Your task to perform on an android device: change notifications settings Image 0: 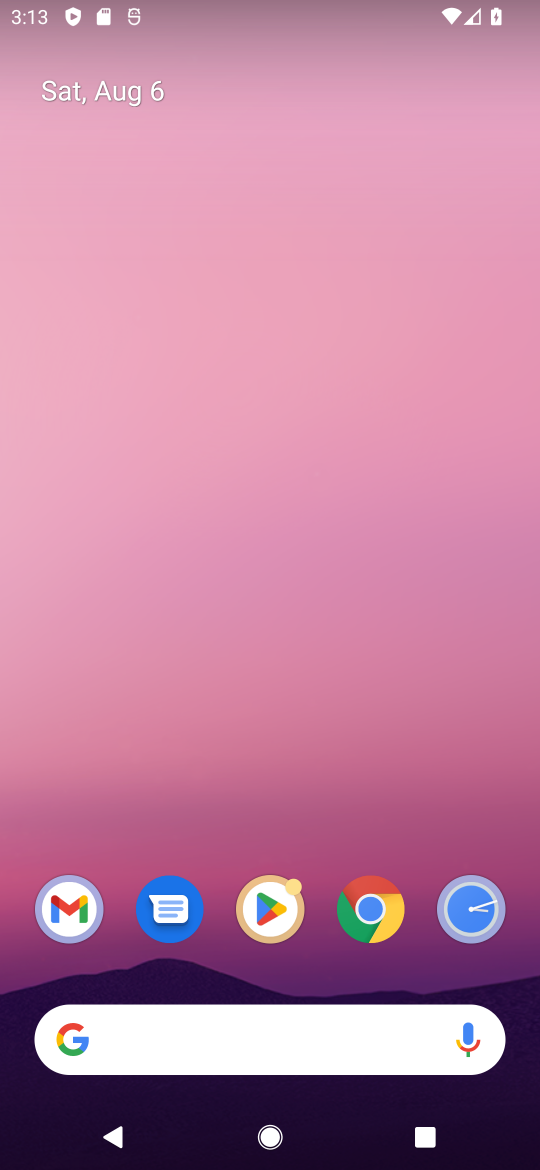
Step 0: drag from (273, 936) to (444, 109)
Your task to perform on an android device: change notifications settings Image 1: 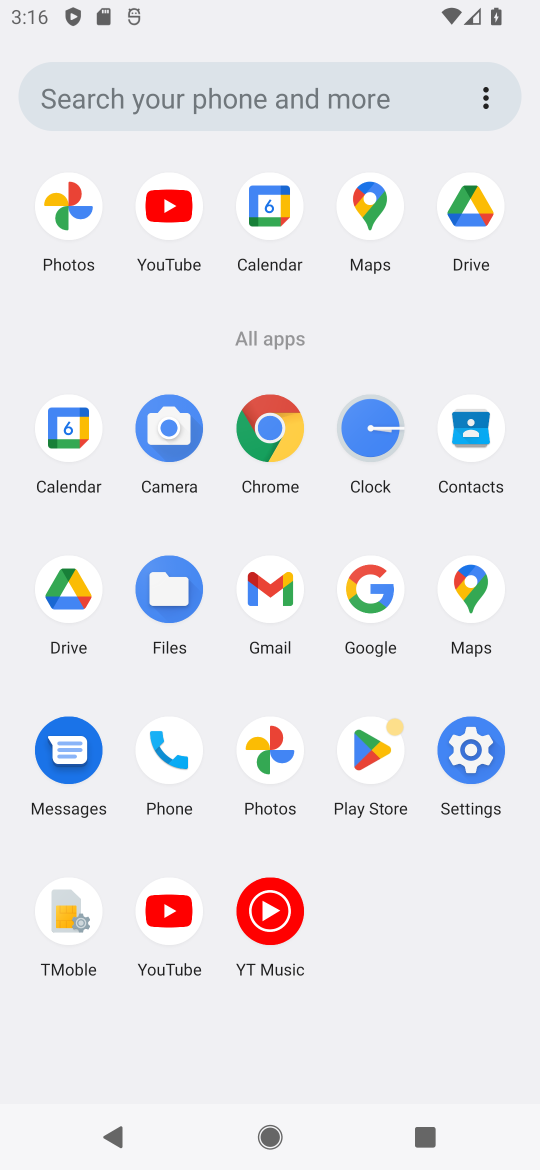
Step 1: click (491, 765)
Your task to perform on an android device: change notifications settings Image 2: 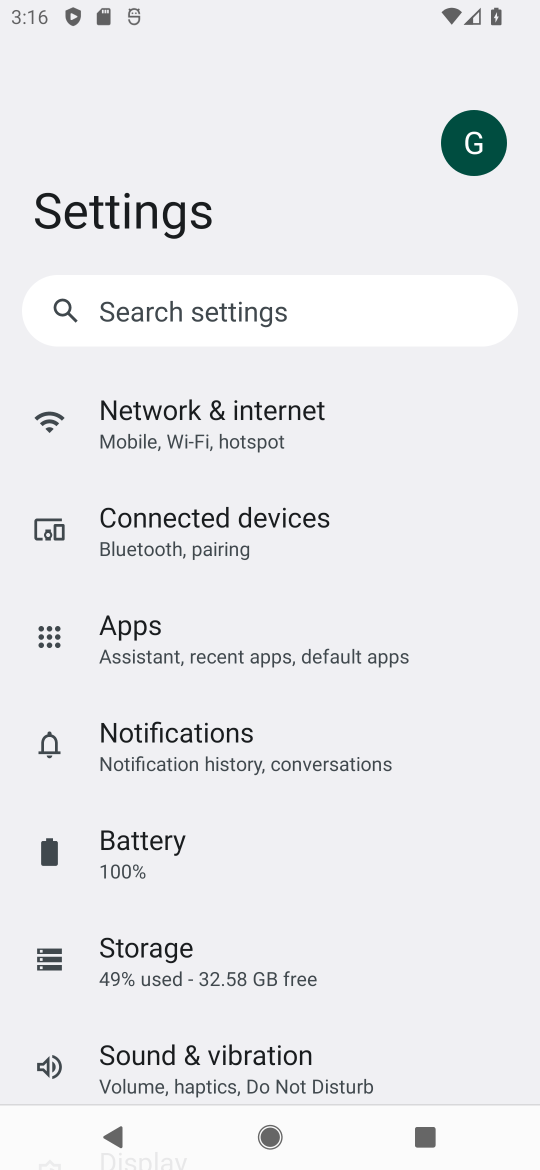
Step 2: click (174, 747)
Your task to perform on an android device: change notifications settings Image 3: 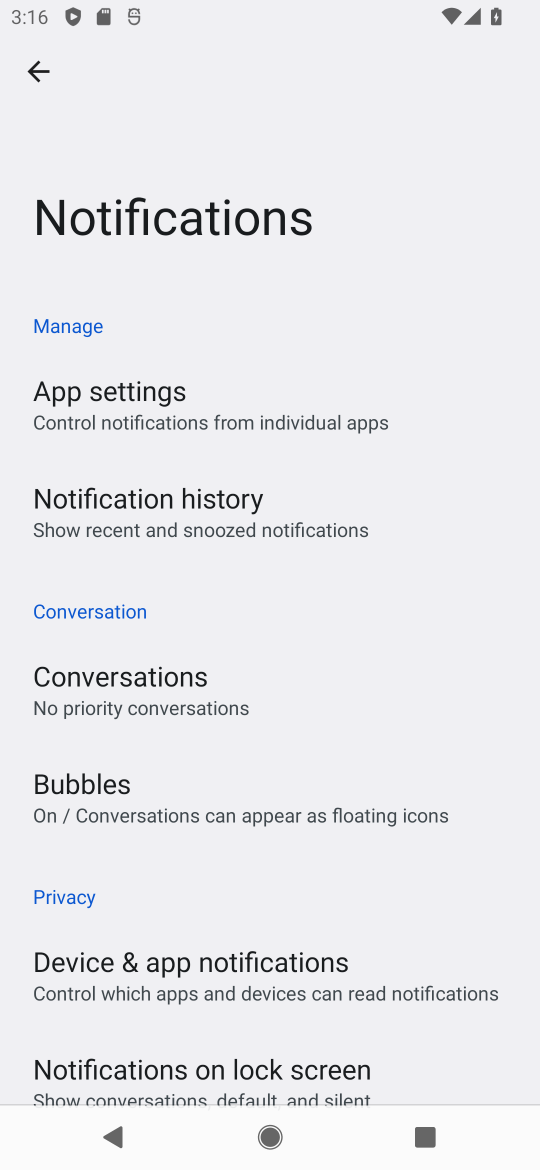
Step 3: click (203, 956)
Your task to perform on an android device: change notifications settings Image 4: 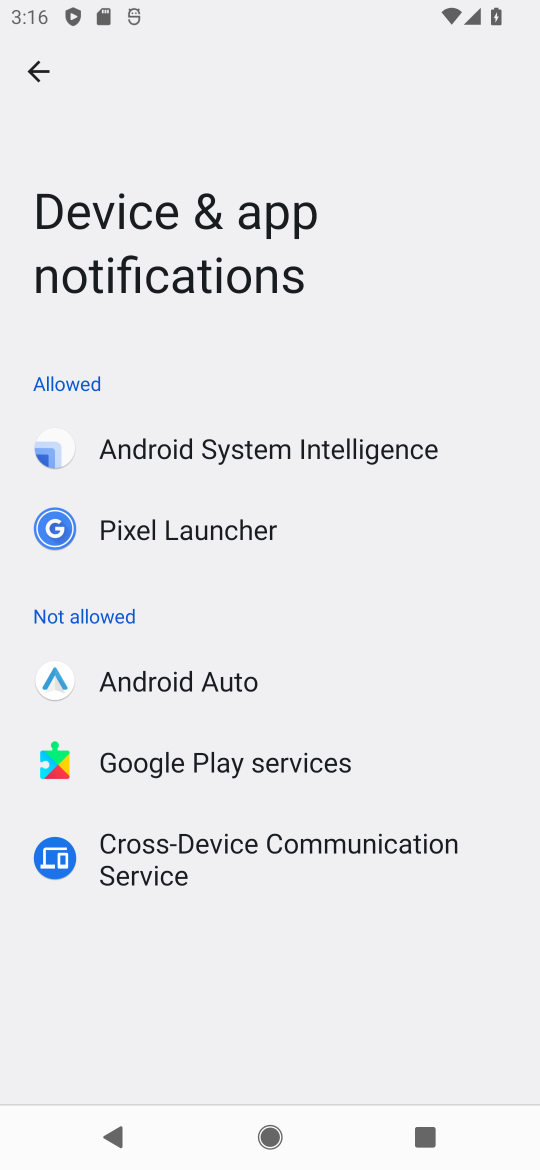
Step 4: click (39, 68)
Your task to perform on an android device: change notifications settings Image 5: 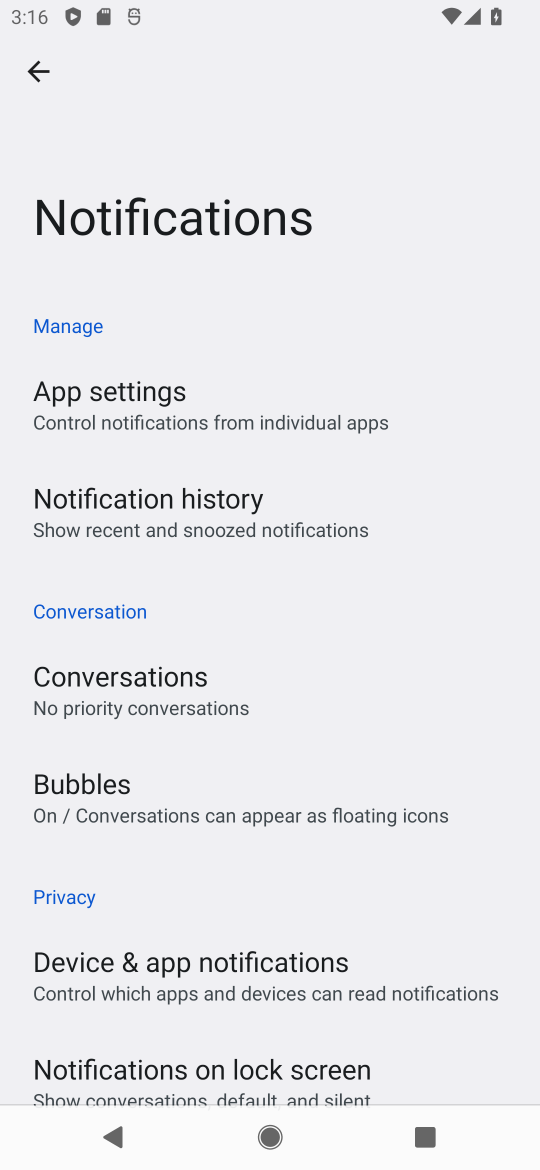
Step 5: drag from (230, 973) to (379, 196)
Your task to perform on an android device: change notifications settings Image 6: 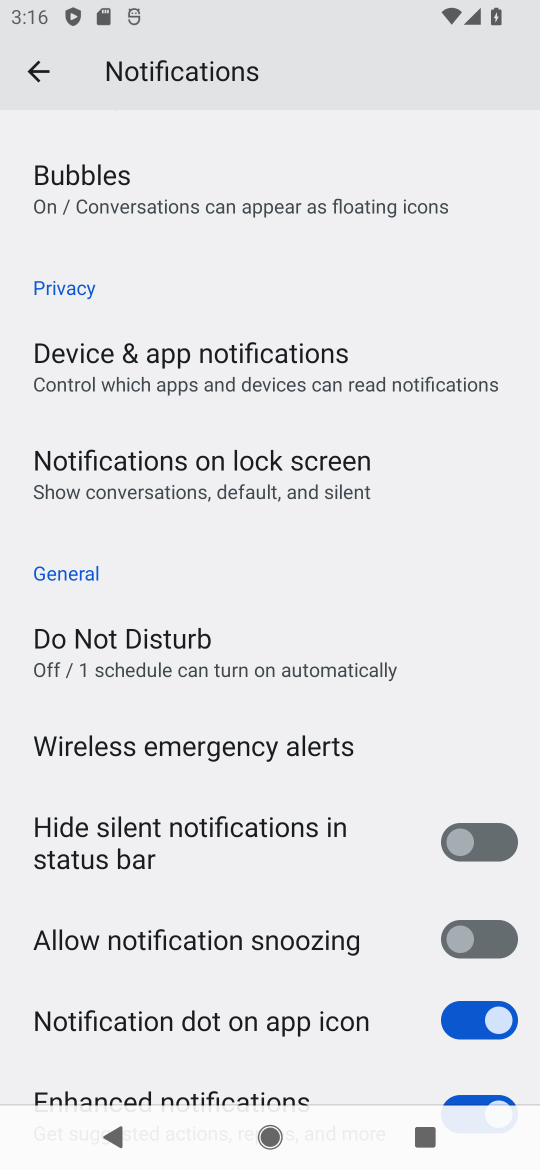
Step 6: click (486, 838)
Your task to perform on an android device: change notifications settings Image 7: 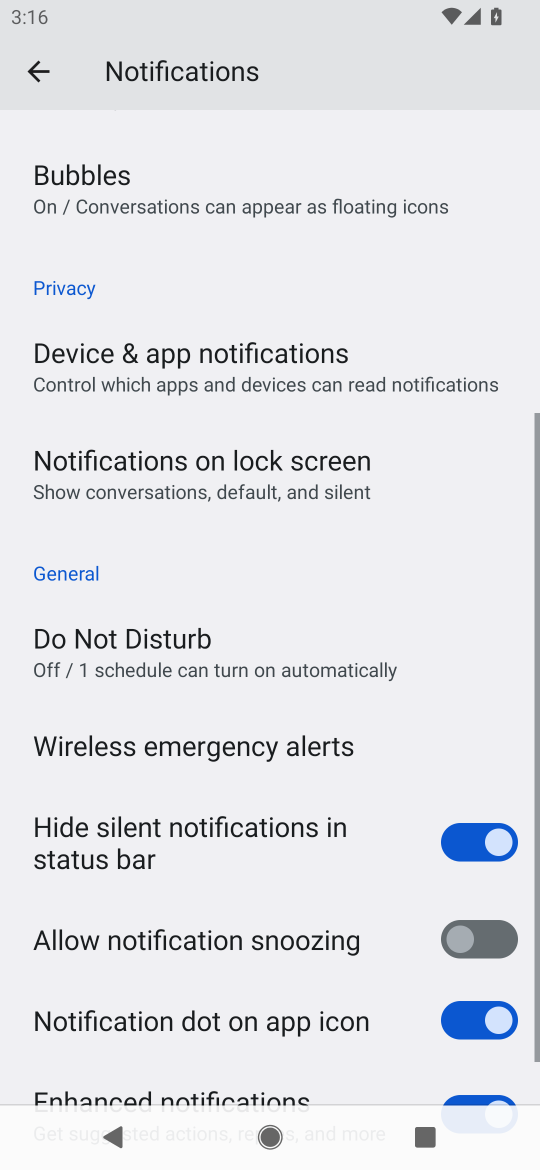
Step 7: task complete